Your task to perform on an android device: Show me recent news Image 0: 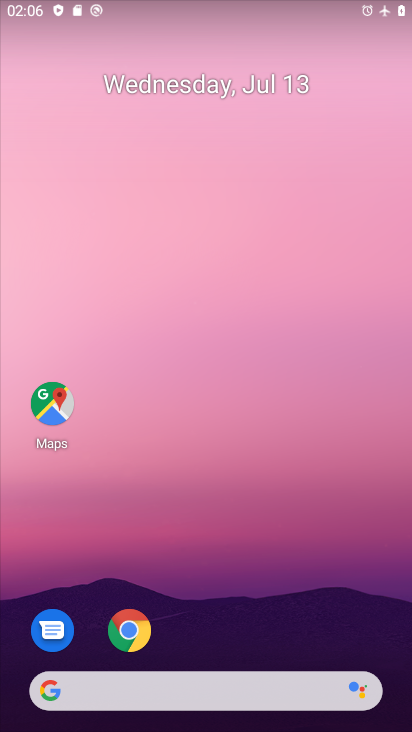
Step 0: drag from (236, 633) to (240, 238)
Your task to perform on an android device: Show me recent news Image 1: 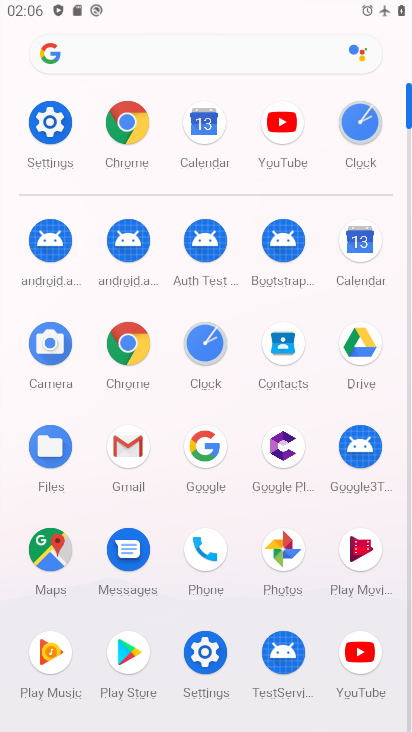
Step 1: click (209, 456)
Your task to perform on an android device: Show me recent news Image 2: 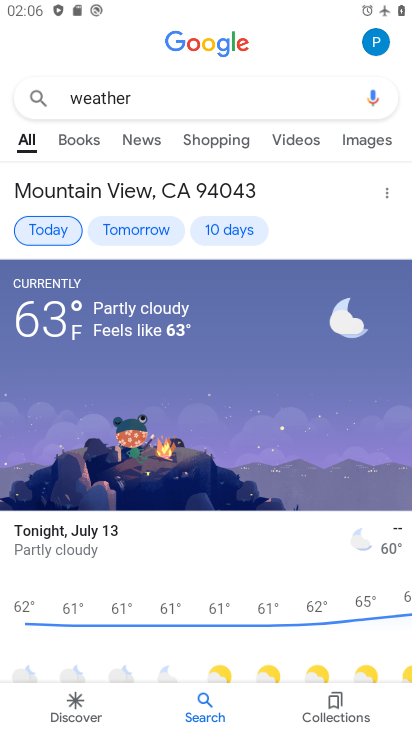
Step 2: click (194, 109)
Your task to perform on an android device: Show me recent news Image 3: 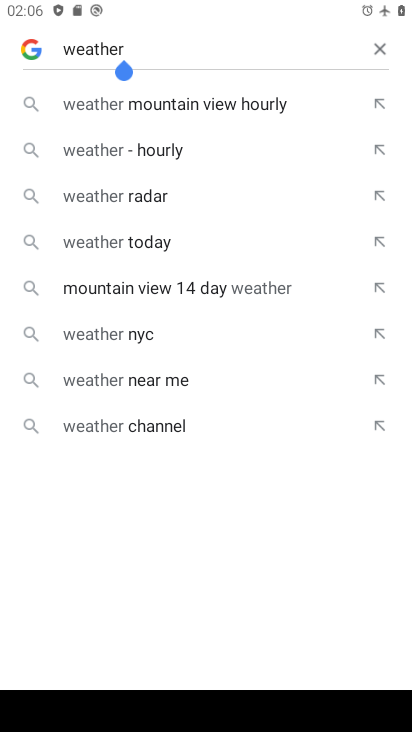
Step 3: click (381, 55)
Your task to perform on an android device: Show me recent news Image 4: 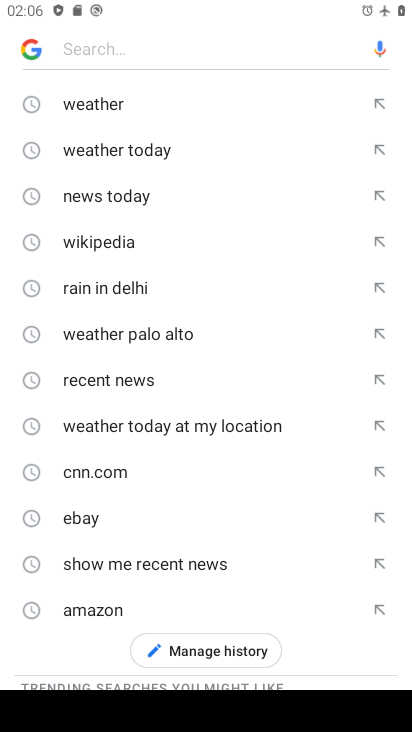
Step 4: click (120, 207)
Your task to perform on an android device: Show me recent news Image 5: 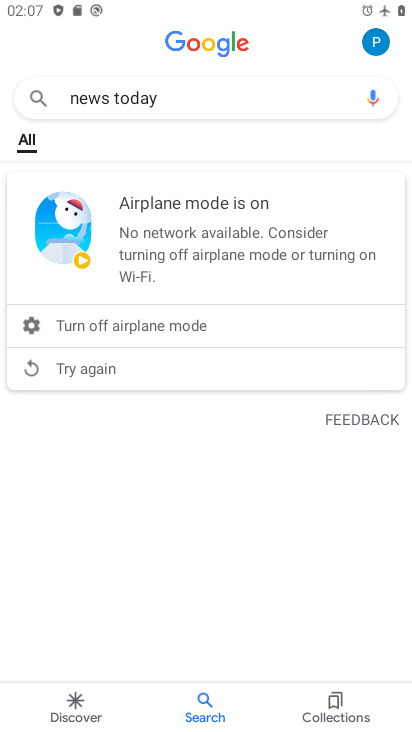
Step 5: task complete